Your task to perform on an android device: uninstall "ZOOM Cloud Meetings" Image 0: 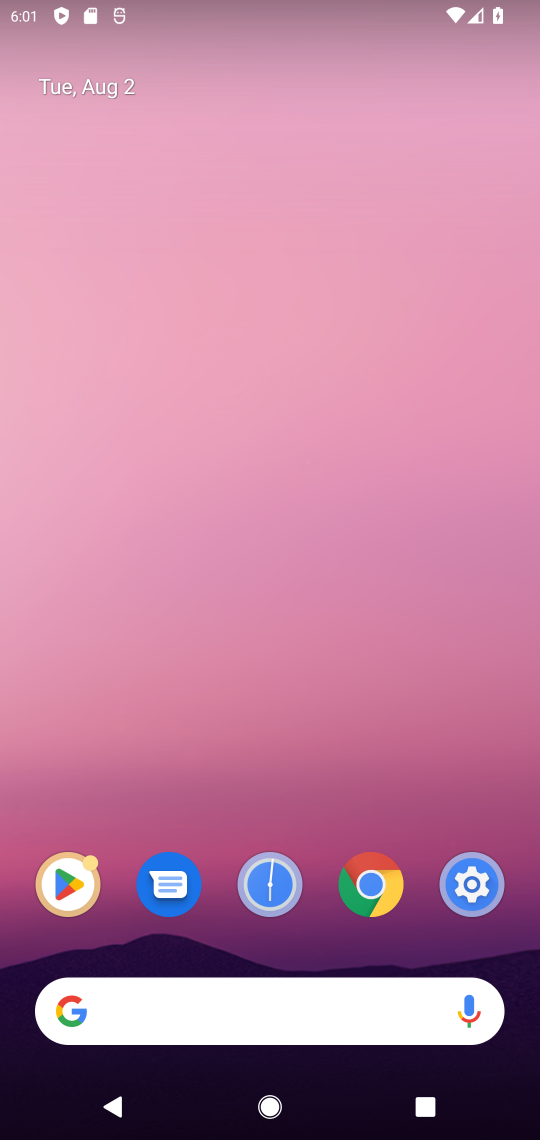
Step 0: drag from (59, 865) to (453, 815)
Your task to perform on an android device: uninstall "ZOOM Cloud Meetings" Image 1: 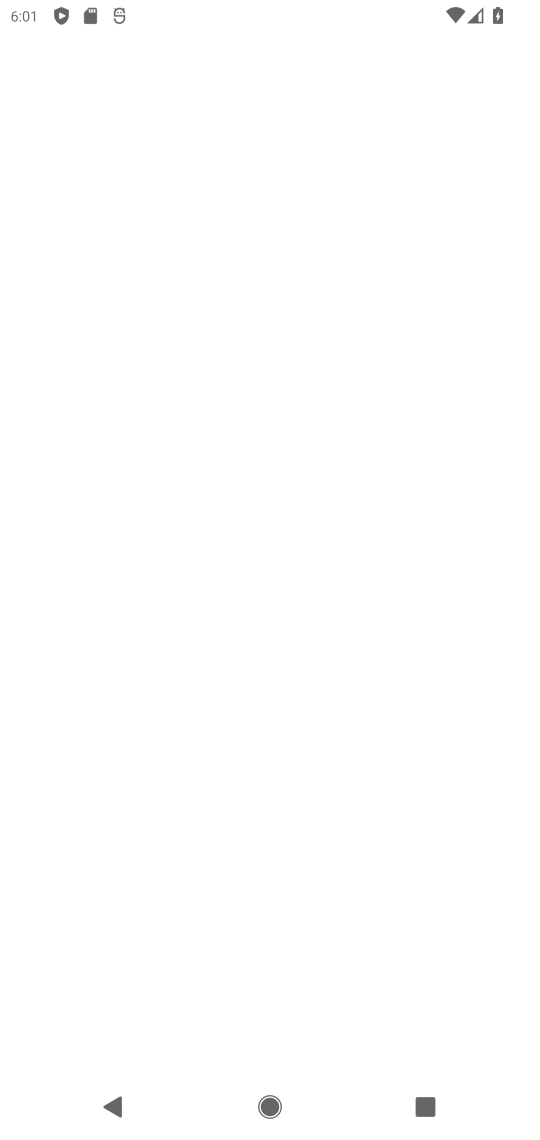
Step 1: press home button
Your task to perform on an android device: uninstall "ZOOM Cloud Meetings" Image 2: 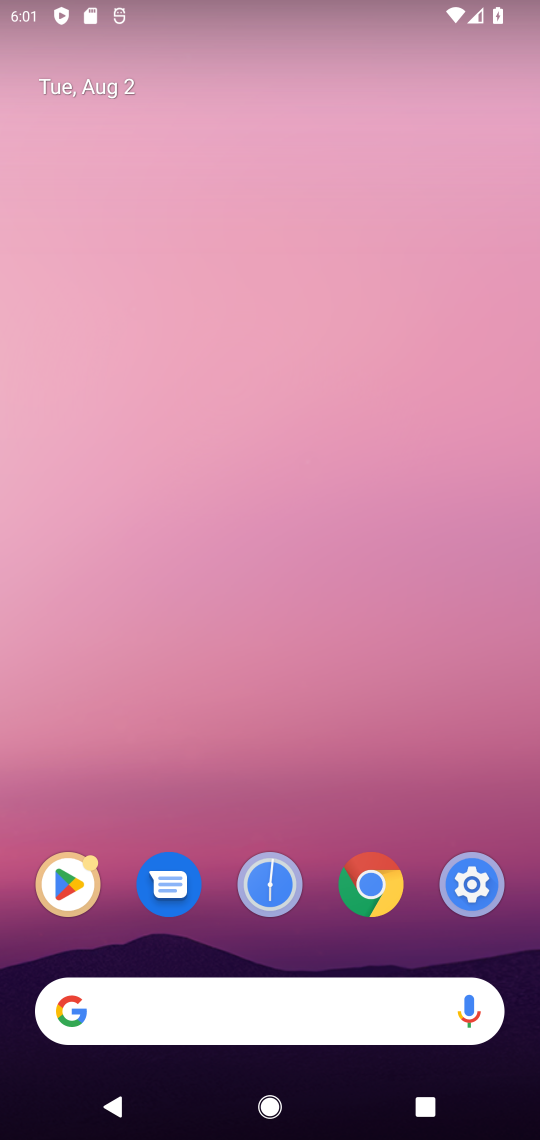
Step 2: drag from (81, 883) to (488, 880)
Your task to perform on an android device: uninstall "ZOOM Cloud Meetings" Image 3: 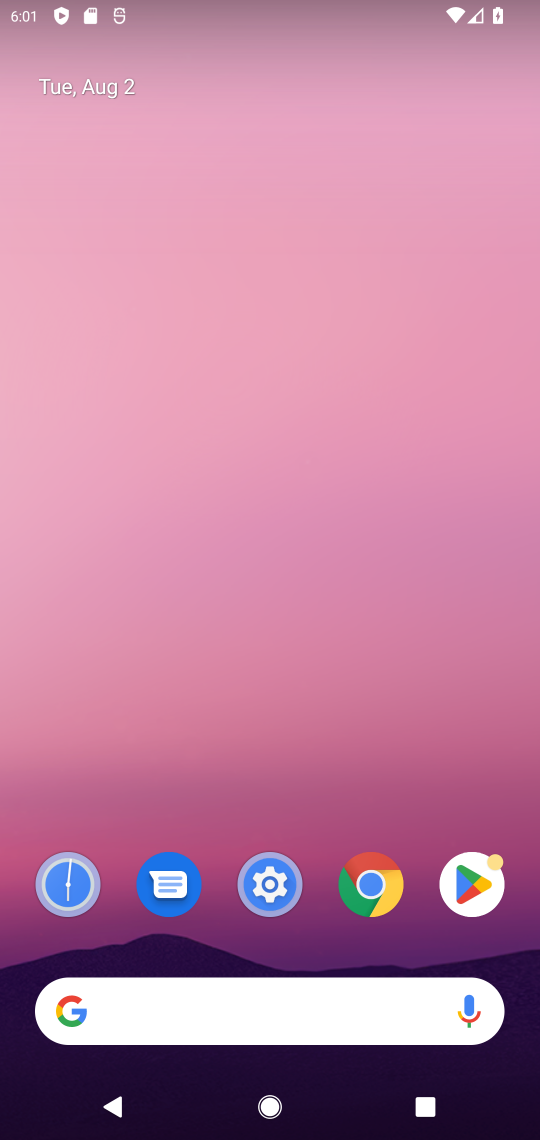
Step 3: click (478, 891)
Your task to perform on an android device: uninstall "ZOOM Cloud Meetings" Image 4: 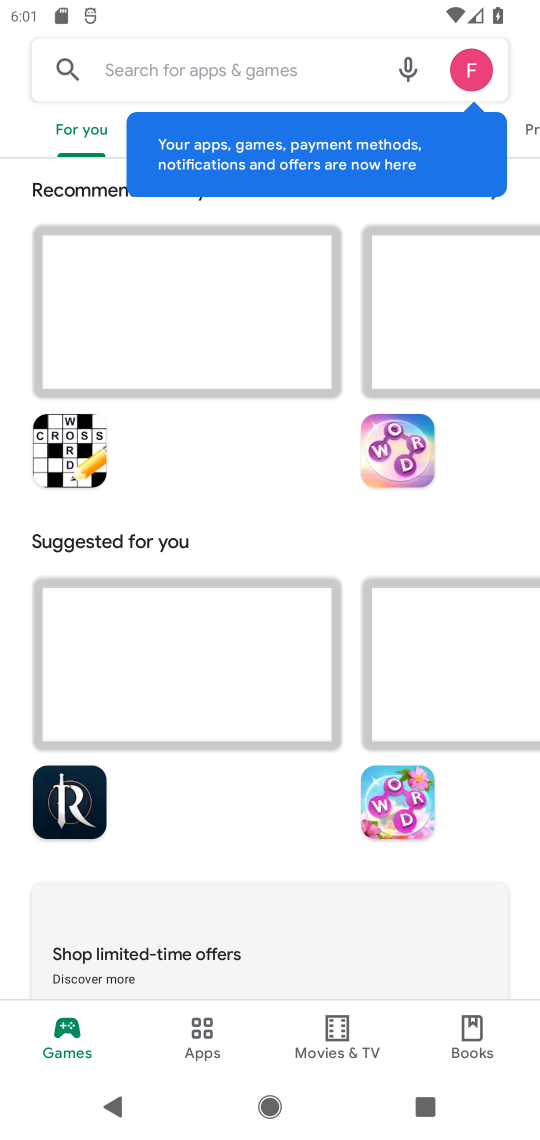
Step 4: click (295, 71)
Your task to perform on an android device: uninstall "ZOOM Cloud Meetings" Image 5: 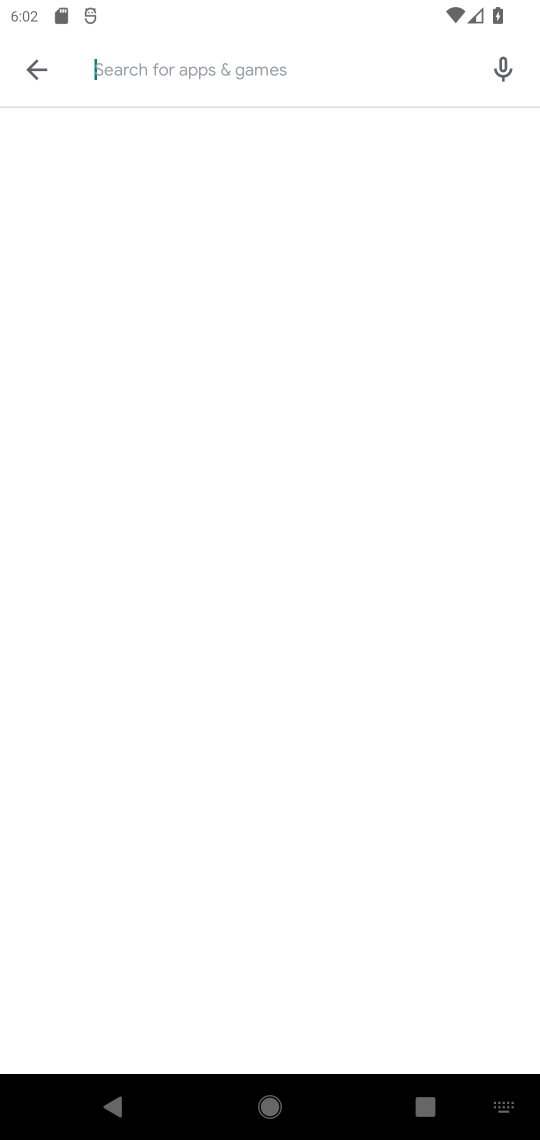
Step 5: click (498, 1116)
Your task to perform on an android device: uninstall "ZOOM Cloud Meetings" Image 6: 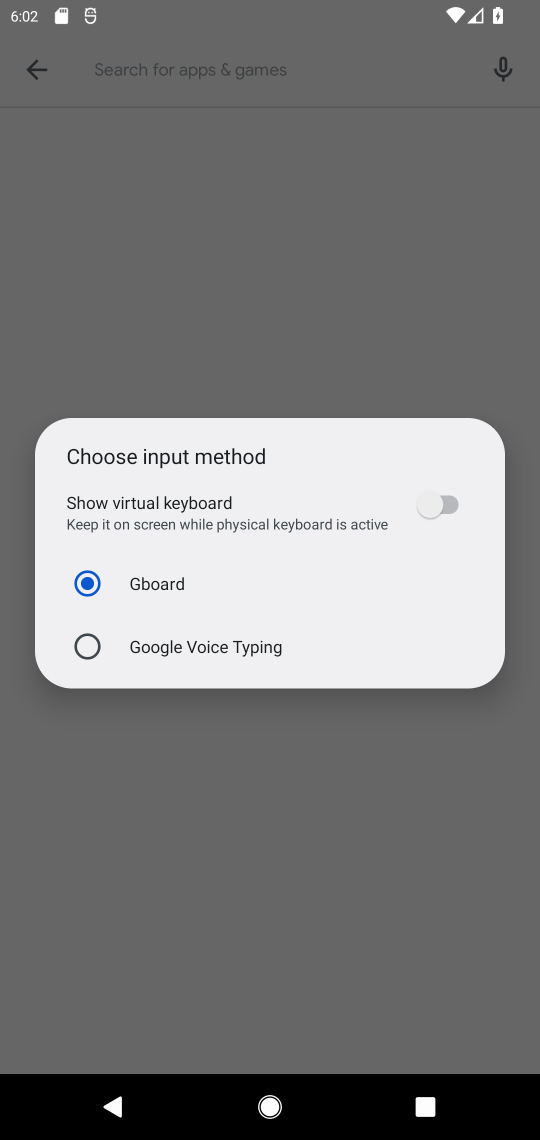
Step 6: click (439, 508)
Your task to perform on an android device: uninstall "ZOOM Cloud Meetings" Image 7: 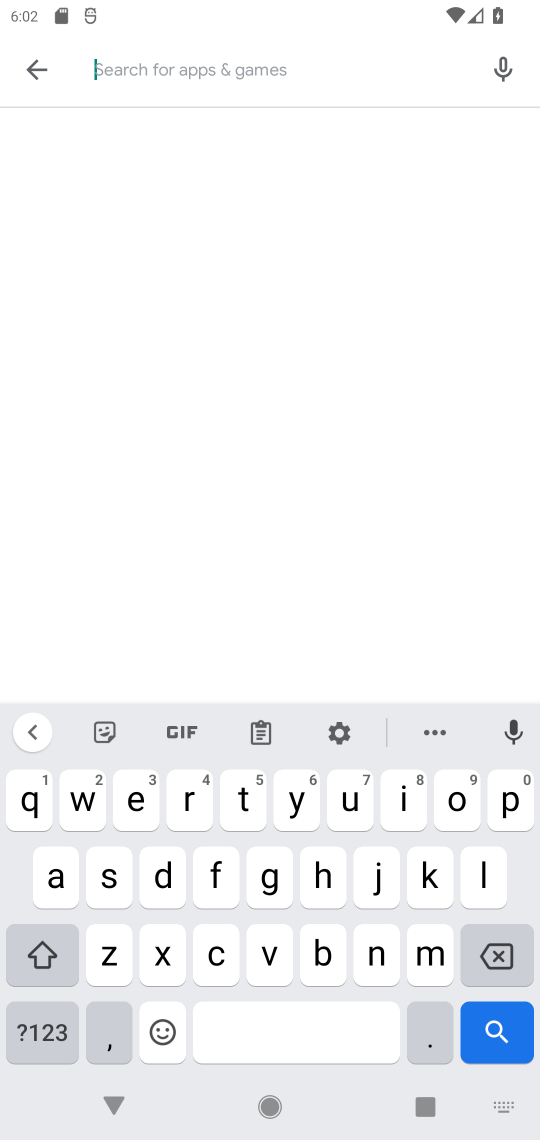
Step 7: click (104, 953)
Your task to perform on an android device: uninstall "ZOOM Cloud Meetings" Image 8: 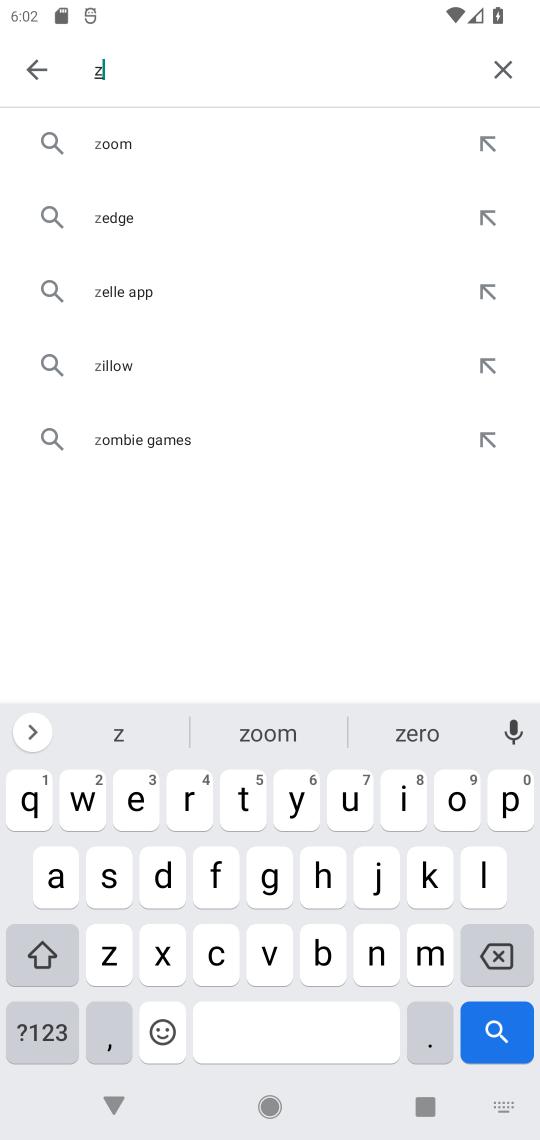
Step 8: click (263, 737)
Your task to perform on an android device: uninstall "ZOOM Cloud Meetings" Image 9: 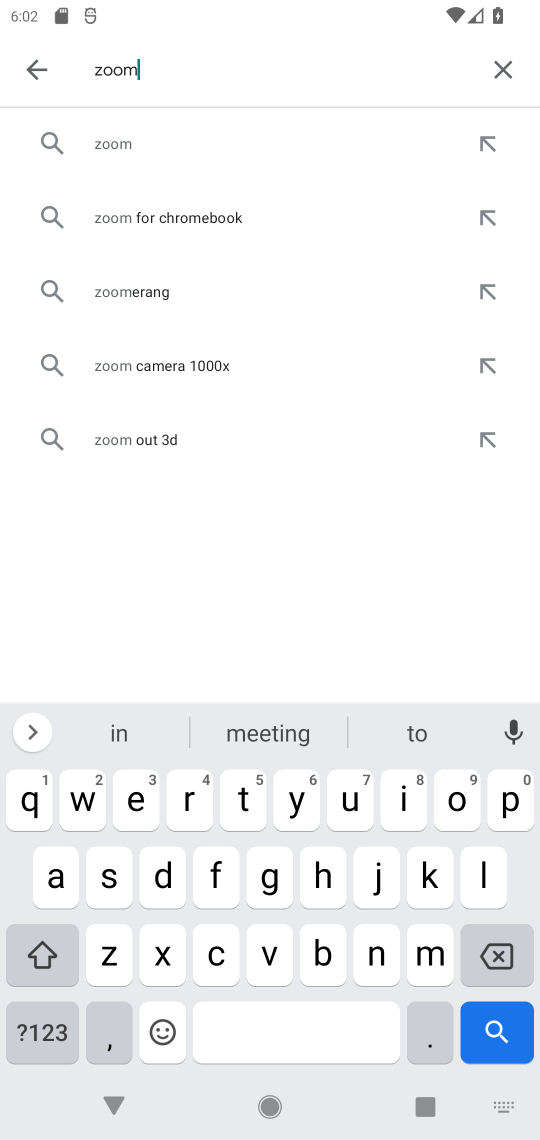
Step 9: click (141, 150)
Your task to perform on an android device: uninstall "ZOOM Cloud Meetings" Image 10: 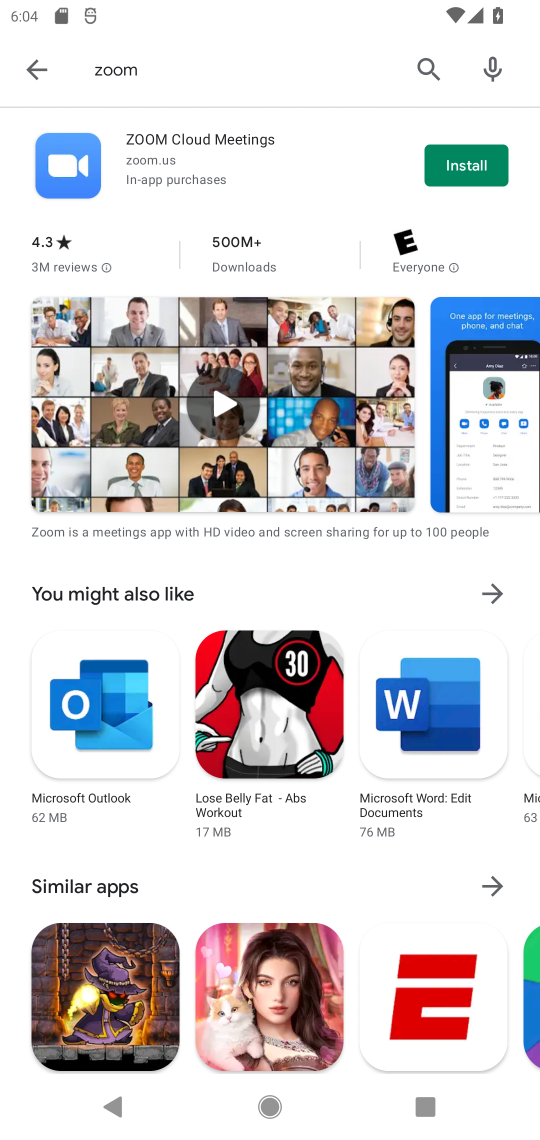
Step 10: task complete